Your task to perform on an android device: Go to CNN.com Image 0: 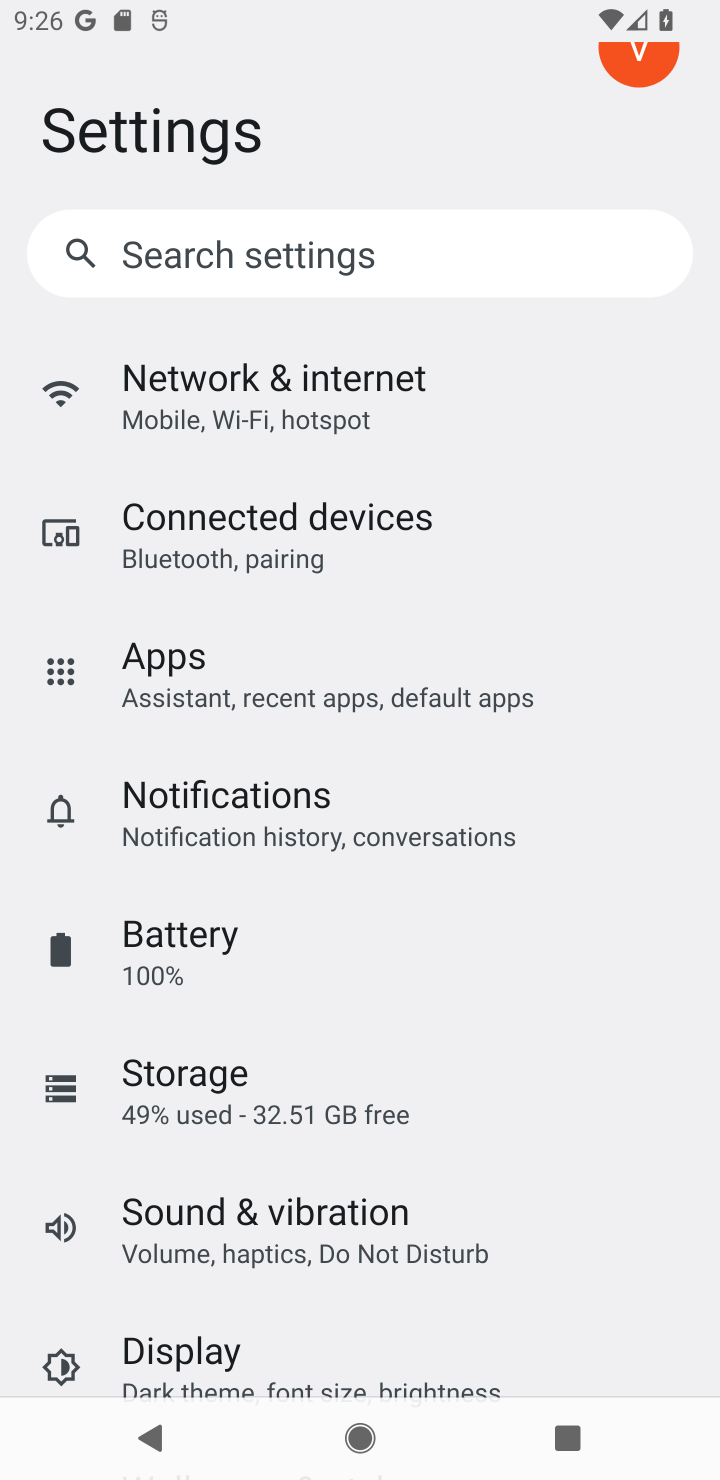
Step 0: press home button
Your task to perform on an android device: Go to CNN.com Image 1: 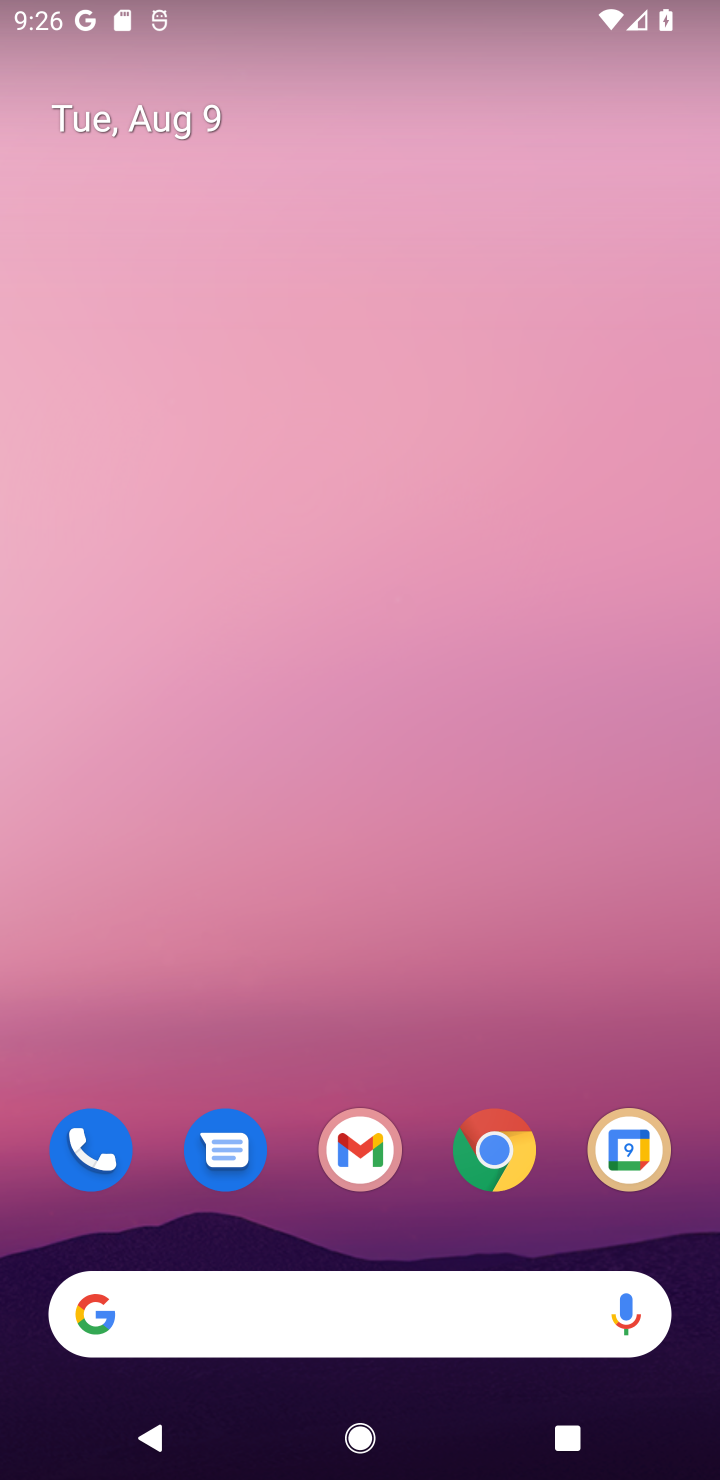
Step 1: drag from (431, 1141) to (631, 621)
Your task to perform on an android device: Go to CNN.com Image 2: 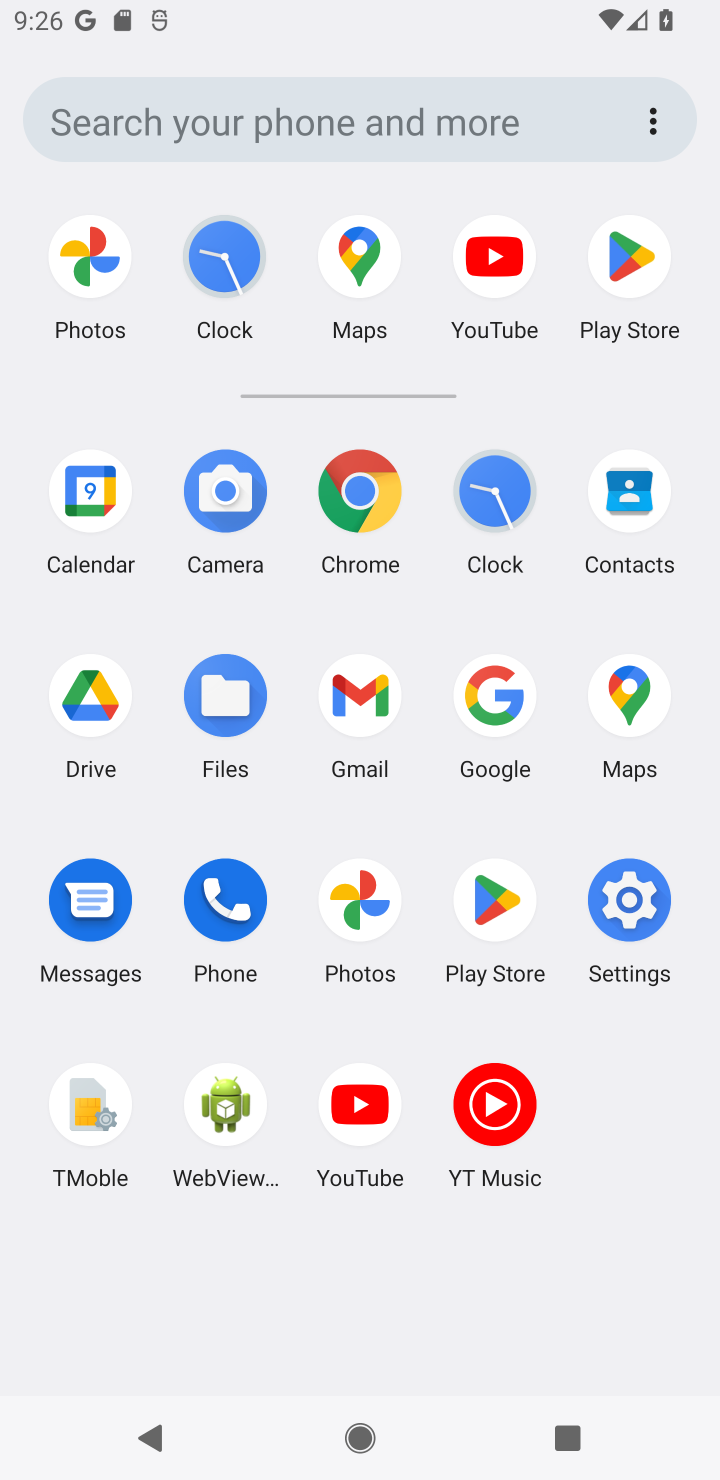
Step 2: click (333, 538)
Your task to perform on an android device: Go to CNN.com Image 3: 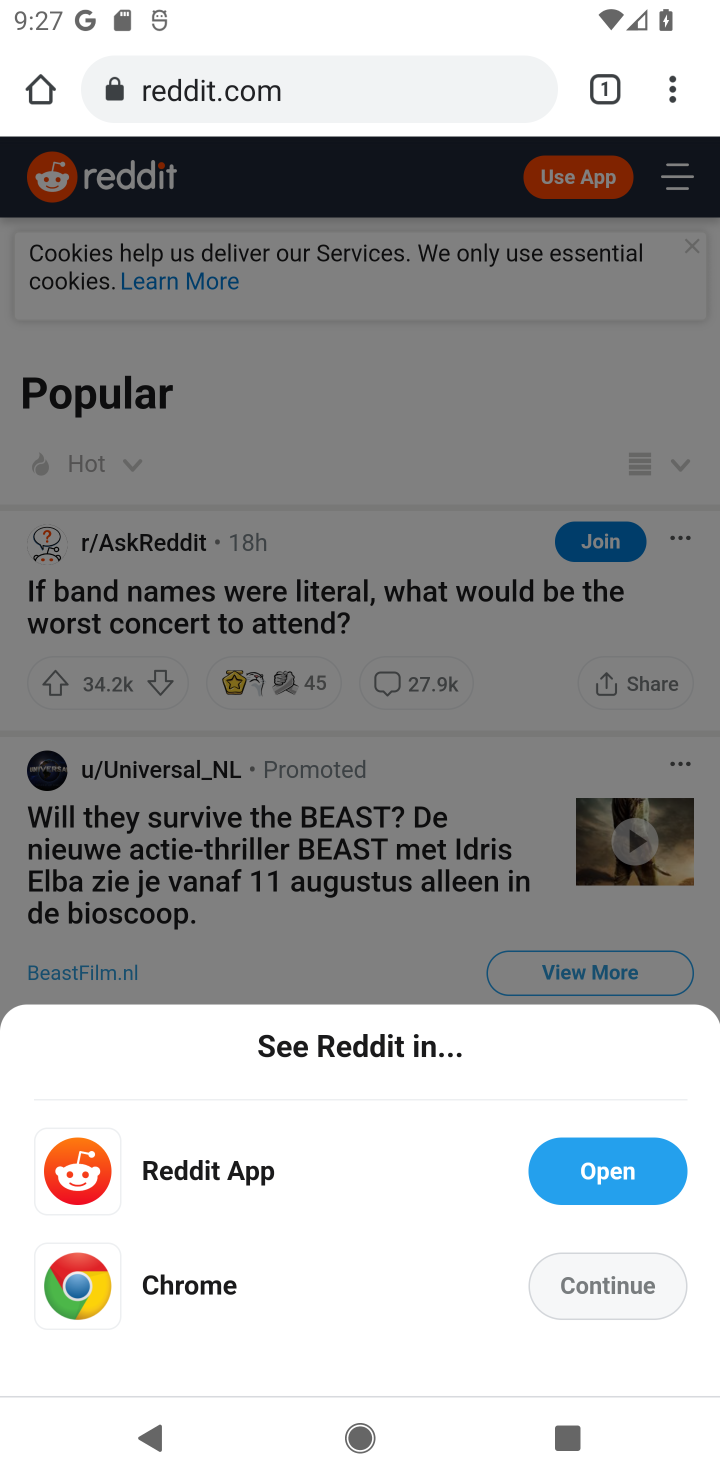
Step 3: click (443, 99)
Your task to perform on an android device: Go to CNN.com Image 4: 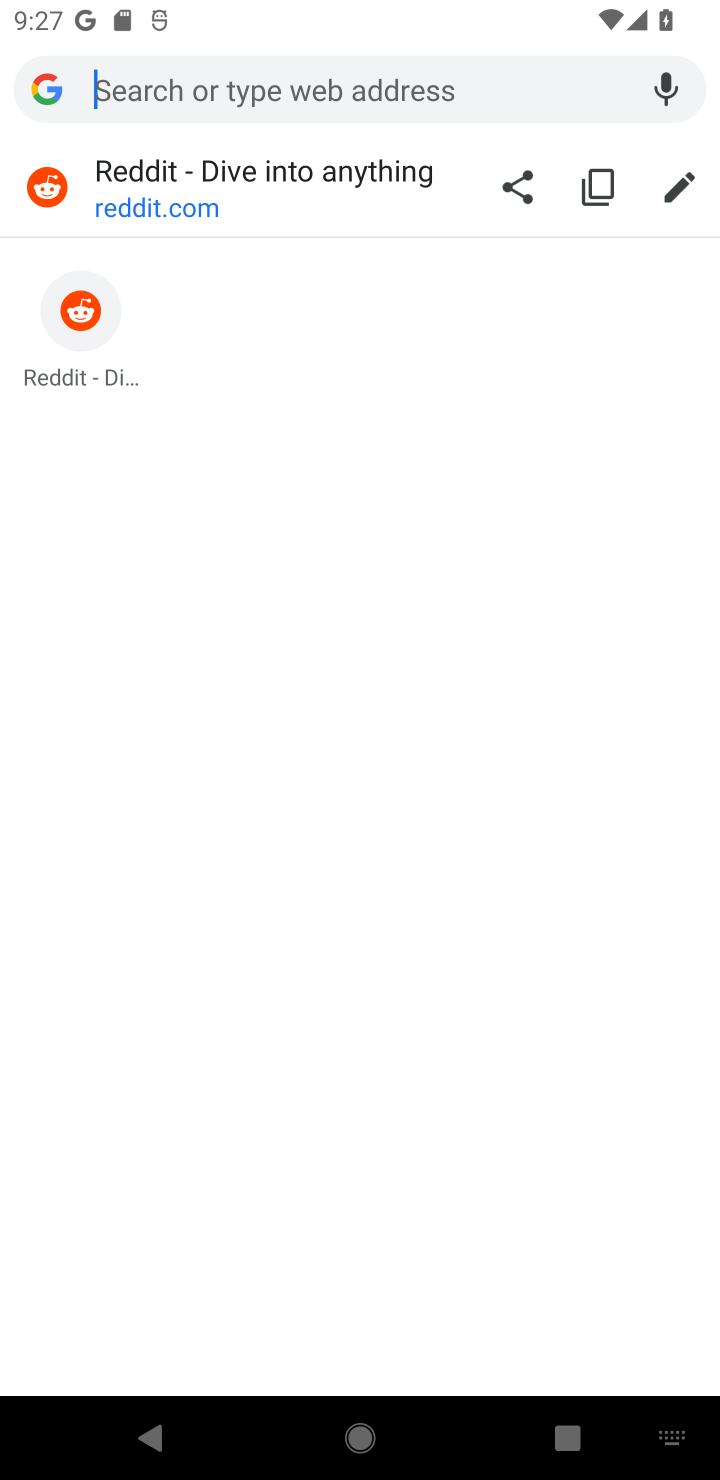
Step 4: type "cnn"
Your task to perform on an android device: Go to CNN.com Image 5: 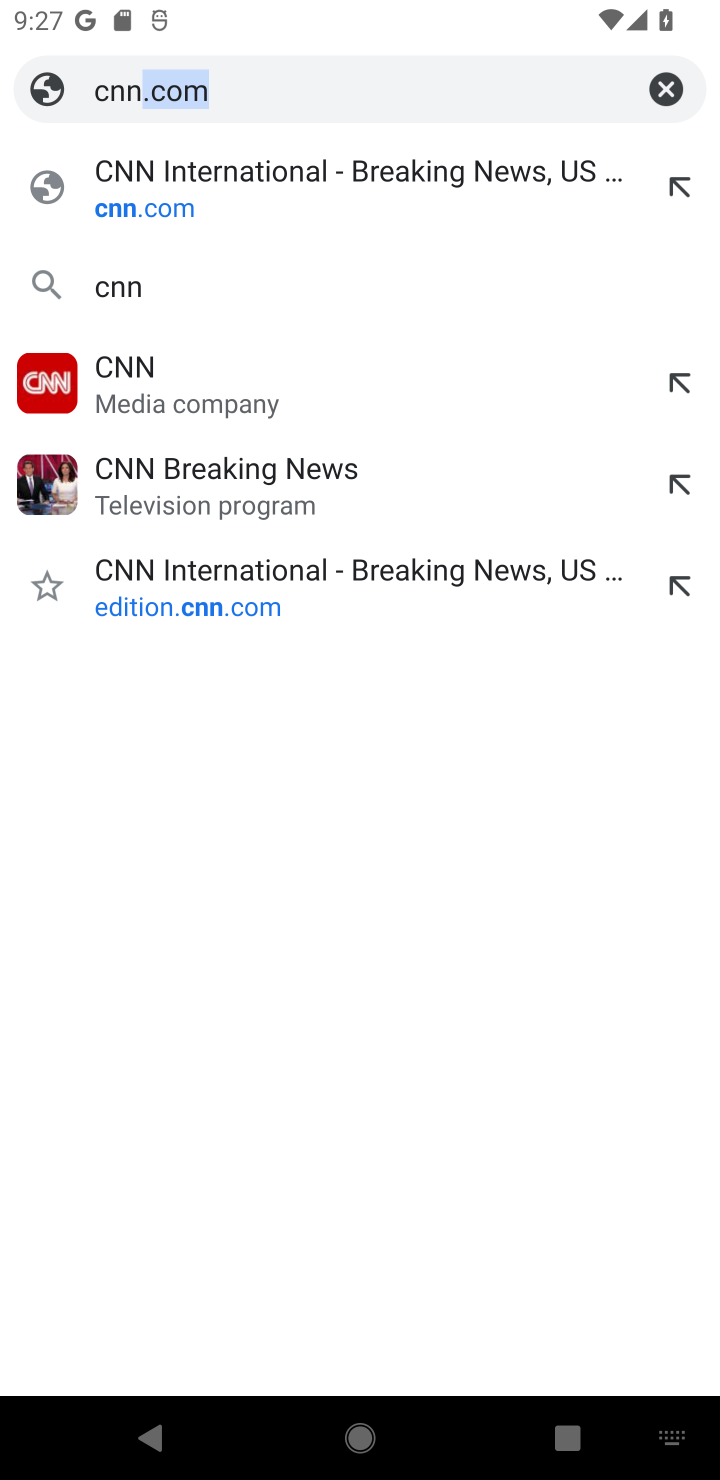
Step 5: click (350, 180)
Your task to perform on an android device: Go to CNN.com Image 6: 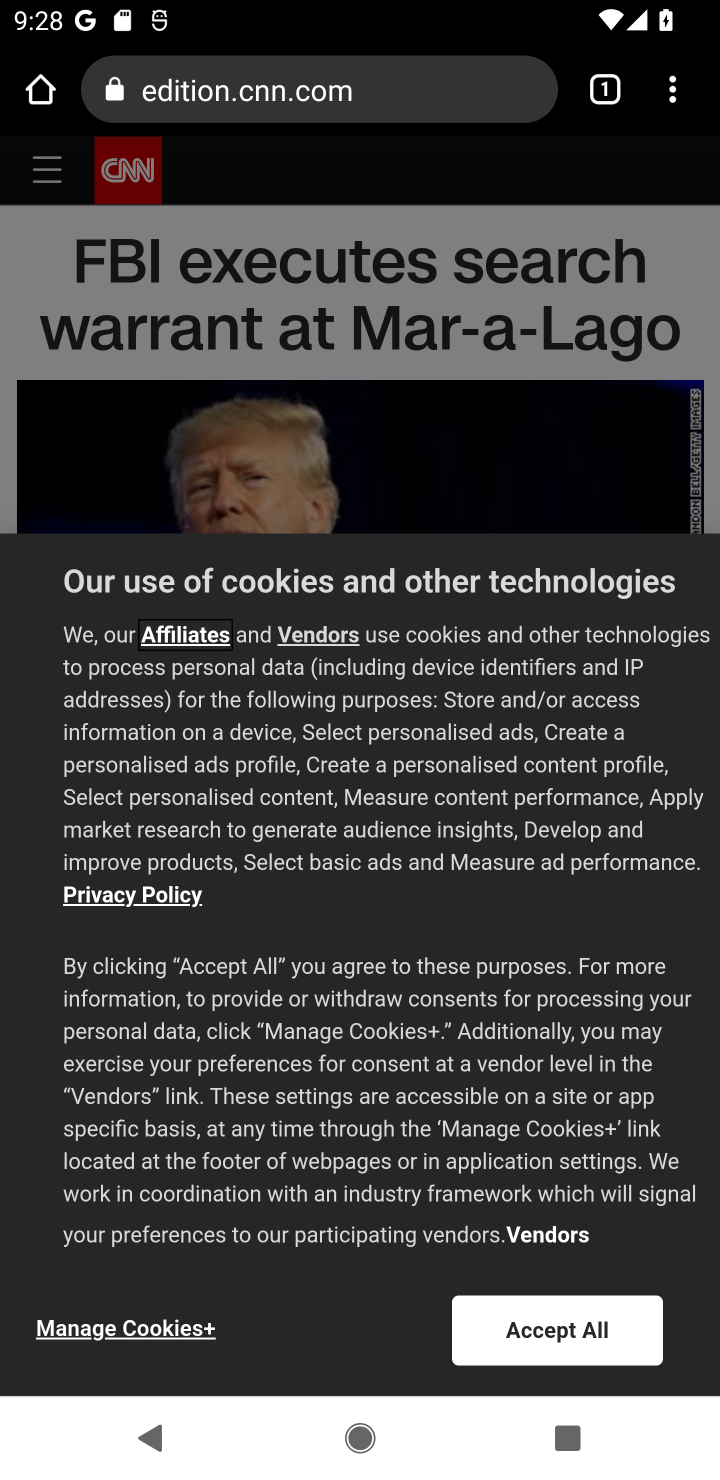
Step 6: task complete